Your task to perform on an android device: all mails in gmail Image 0: 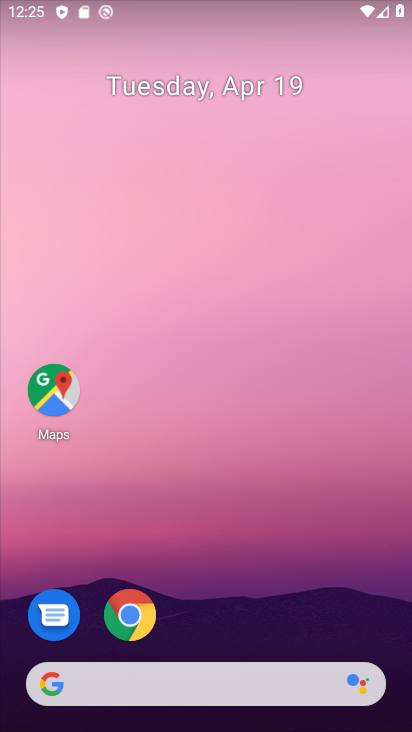
Step 0: drag from (269, 612) to (335, 135)
Your task to perform on an android device: all mails in gmail Image 1: 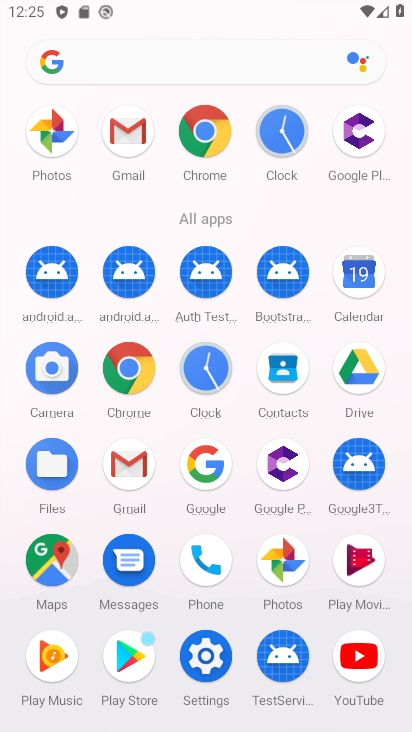
Step 1: click (128, 468)
Your task to perform on an android device: all mails in gmail Image 2: 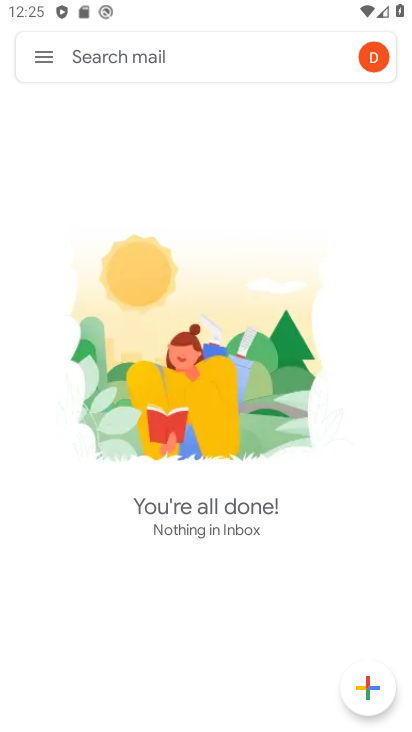
Step 2: click (37, 63)
Your task to perform on an android device: all mails in gmail Image 3: 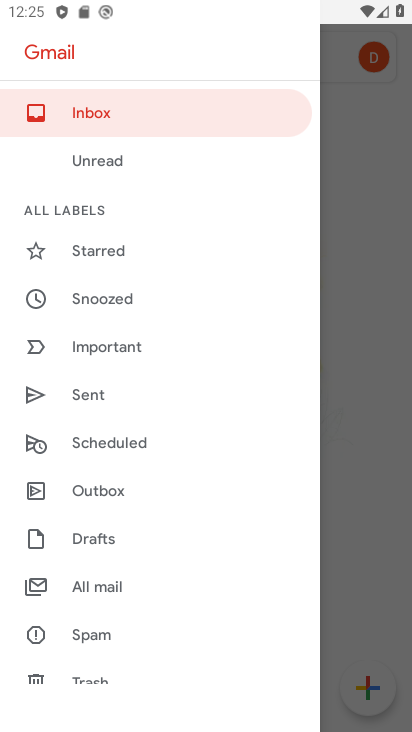
Step 3: drag from (202, 589) to (285, 215)
Your task to perform on an android device: all mails in gmail Image 4: 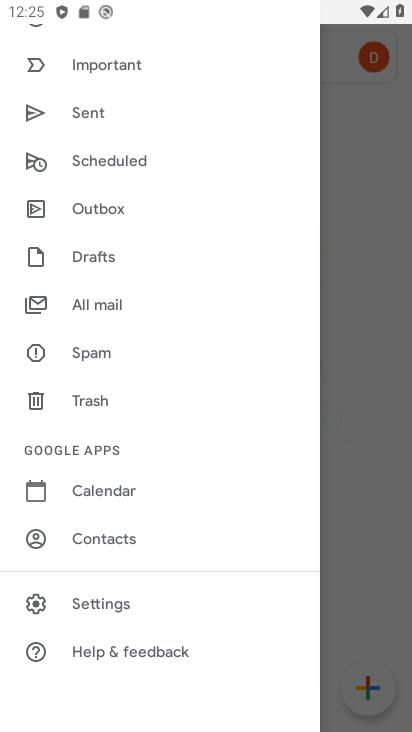
Step 4: click (97, 304)
Your task to perform on an android device: all mails in gmail Image 5: 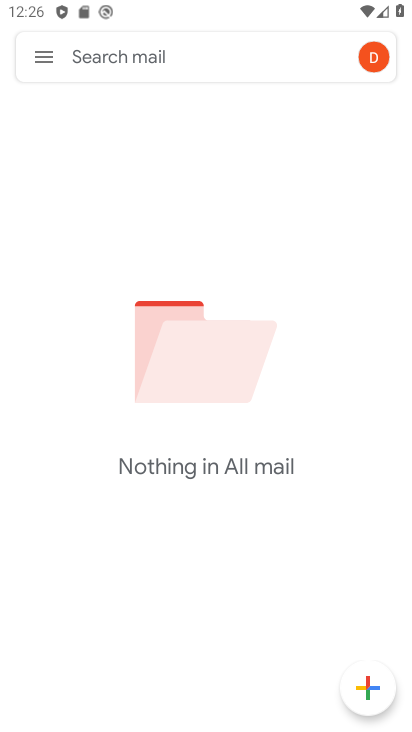
Step 5: task complete